Your task to perform on an android device: Open calendar and show me the first week of next month Image 0: 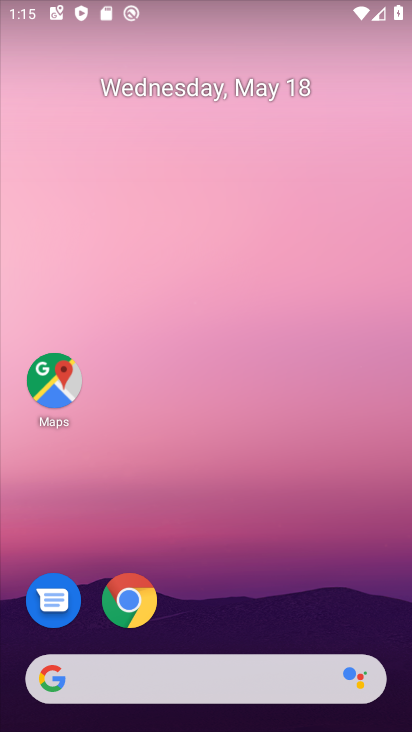
Step 0: drag from (270, 623) to (175, 52)
Your task to perform on an android device: Open calendar and show me the first week of next month Image 1: 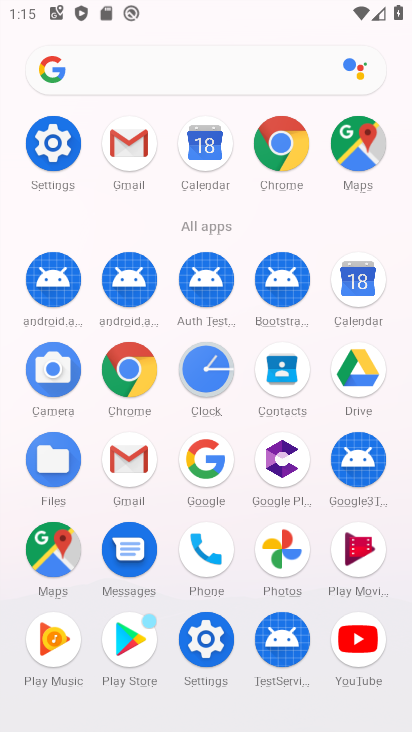
Step 1: click (361, 283)
Your task to perform on an android device: Open calendar and show me the first week of next month Image 2: 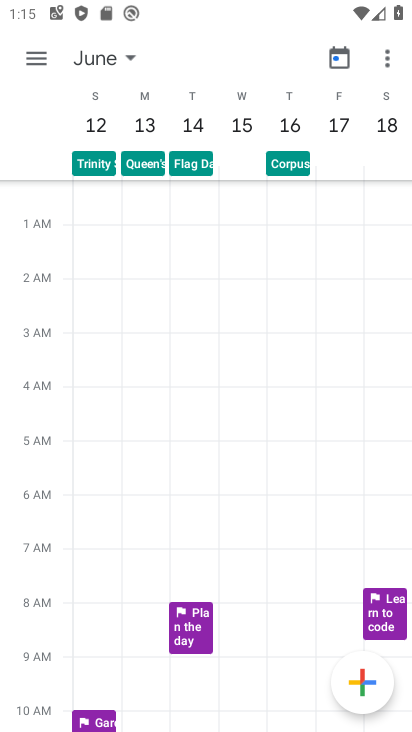
Step 2: click (344, 62)
Your task to perform on an android device: Open calendar and show me the first week of next month Image 3: 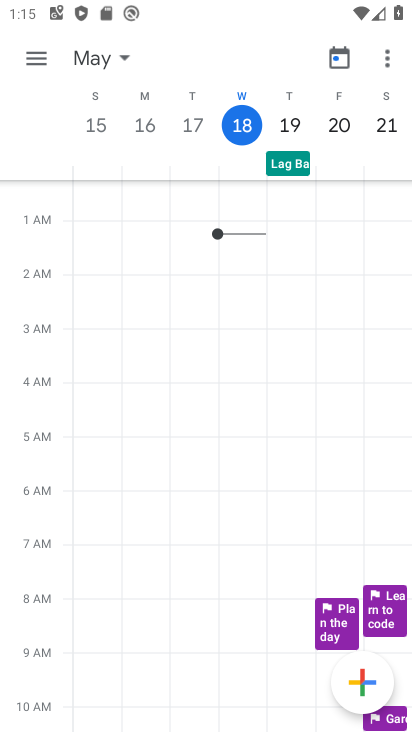
Step 3: click (126, 55)
Your task to perform on an android device: Open calendar and show me the first week of next month Image 4: 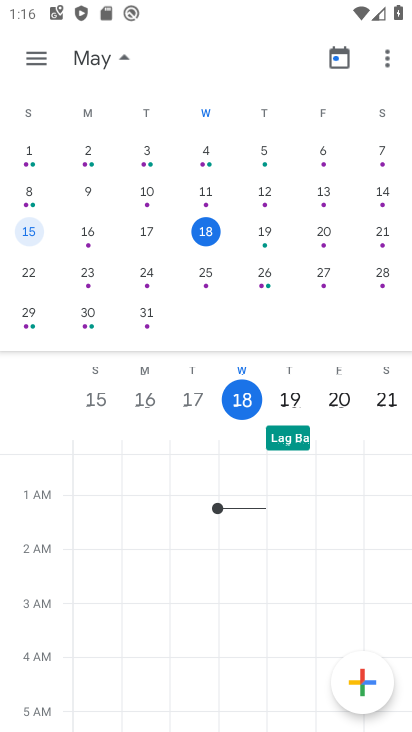
Step 4: drag from (365, 233) to (12, 210)
Your task to perform on an android device: Open calendar and show me the first week of next month Image 5: 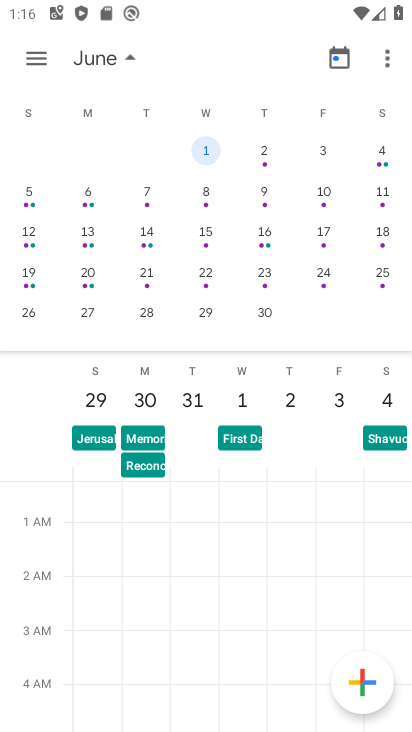
Step 5: click (90, 188)
Your task to perform on an android device: Open calendar and show me the first week of next month Image 6: 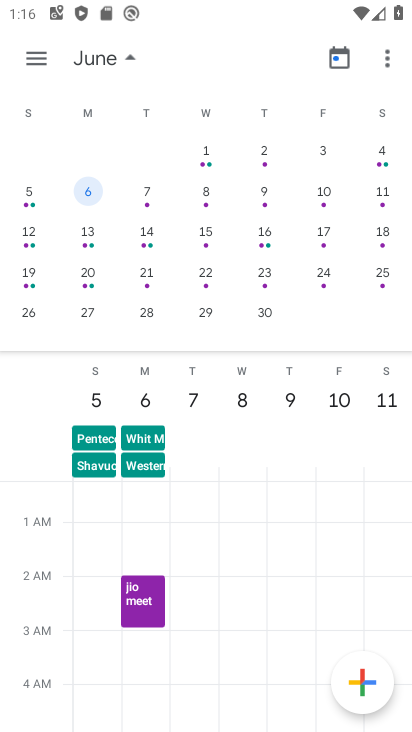
Step 6: click (34, 60)
Your task to perform on an android device: Open calendar and show me the first week of next month Image 7: 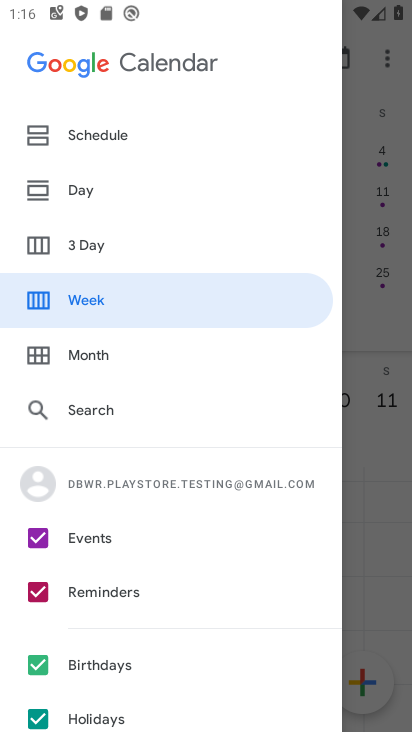
Step 7: click (120, 306)
Your task to perform on an android device: Open calendar and show me the first week of next month Image 8: 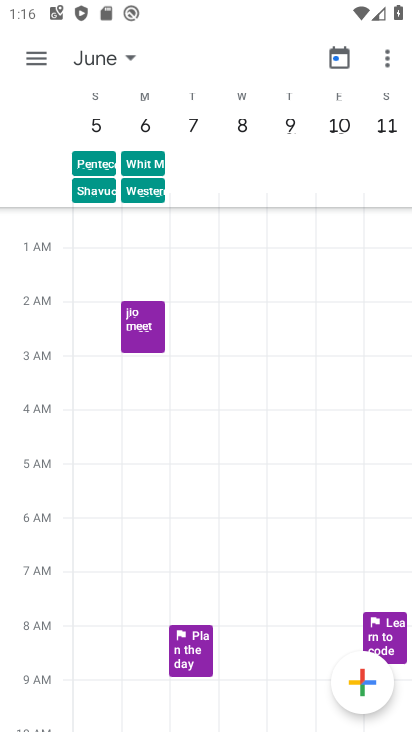
Step 8: task complete